Your task to perform on an android device: toggle data saver in the chrome app Image 0: 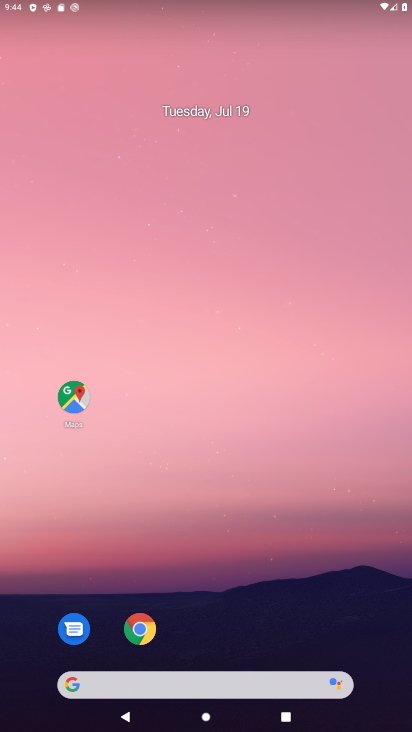
Step 0: click (137, 629)
Your task to perform on an android device: toggle data saver in the chrome app Image 1: 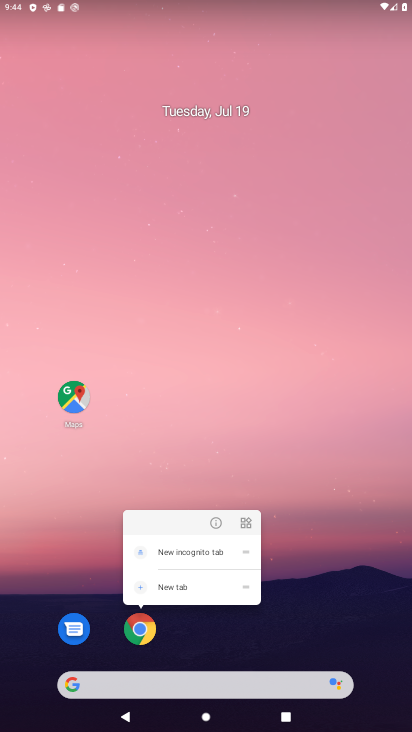
Step 1: click (143, 628)
Your task to perform on an android device: toggle data saver in the chrome app Image 2: 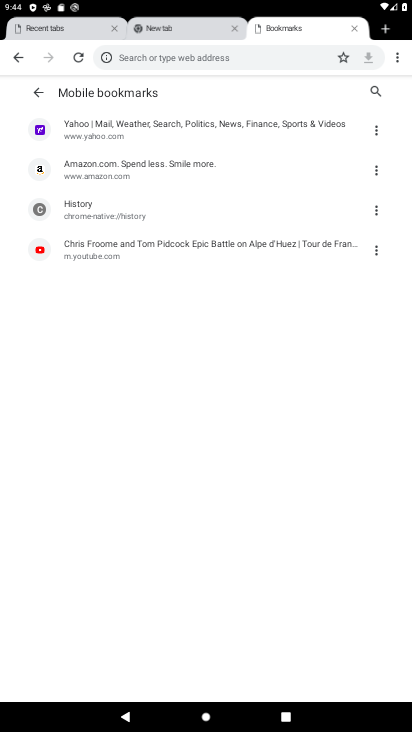
Step 2: drag from (397, 55) to (263, 263)
Your task to perform on an android device: toggle data saver in the chrome app Image 3: 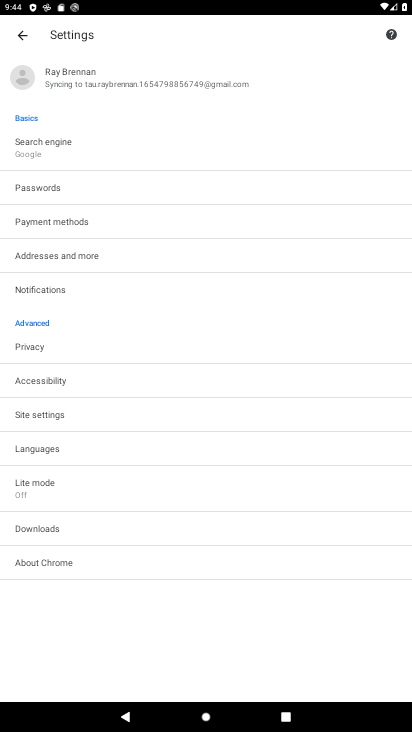
Step 3: click (42, 491)
Your task to perform on an android device: toggle data saver in the chrome app Image 4: 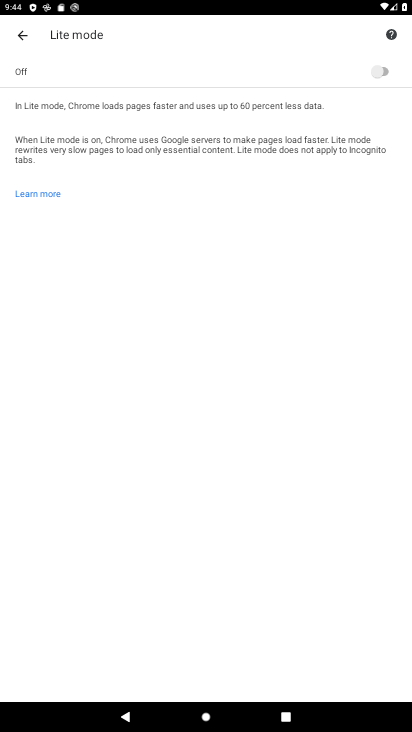
Step 4: click (373, 72)
Your task to perform on an android device: toggle data saver in the chrome app Image 5: 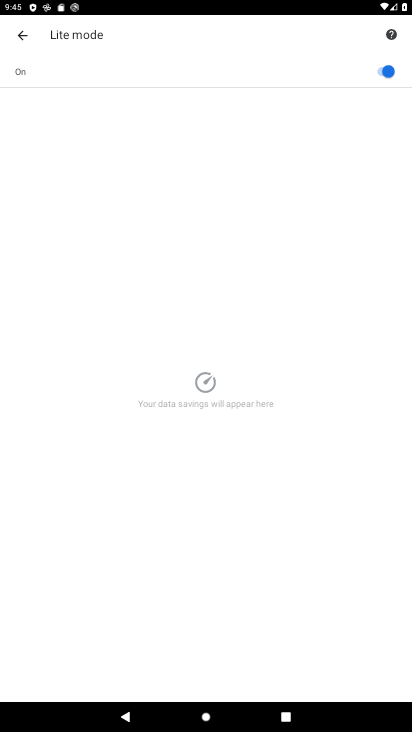
Step 5: task complete